Your task to perform on an android device: turn on improve location accuracy Image 0: 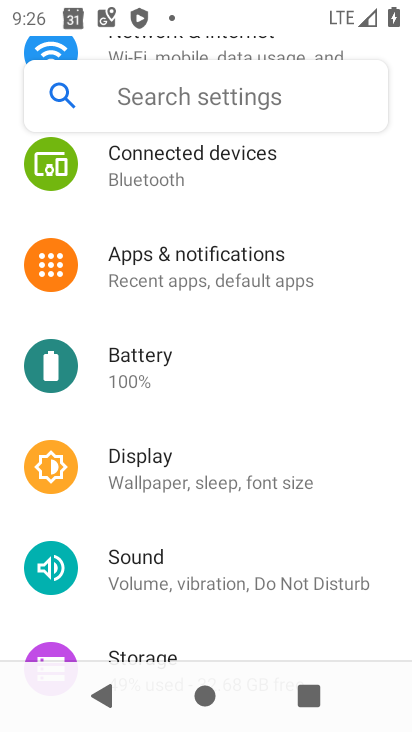
Step 0: press home button
Your task to perform on an android device: turn on improve location accuracy Image 1: 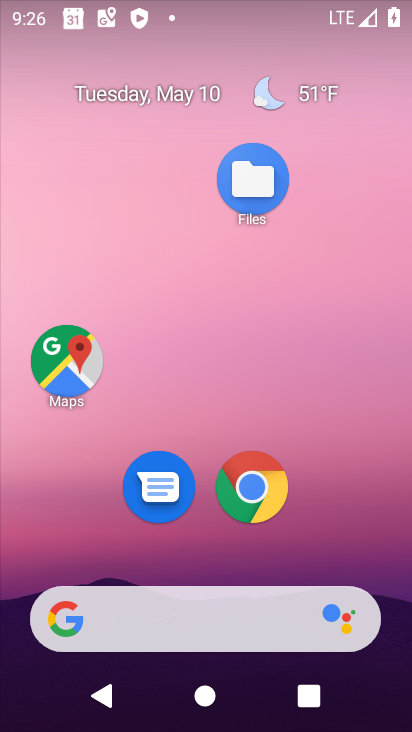
Step 1: drag from (203, 560) to (202, 106)
Your task to perform on an android device: turn on improve location accuracy Image 2: 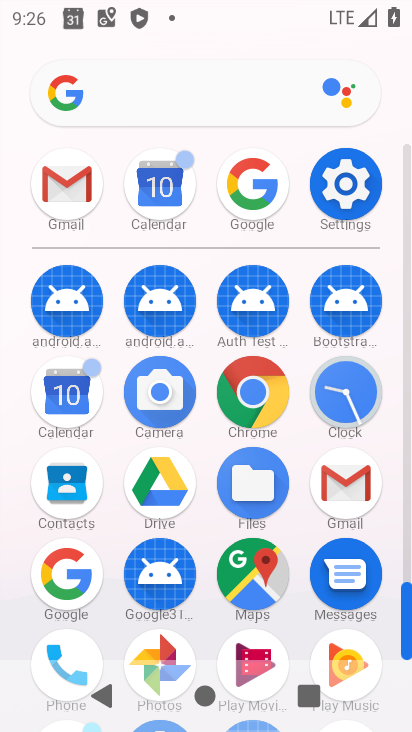
Step 2: click (346, 187)
Your task to perform on an android device: turn on improve location accuracy Image 3: 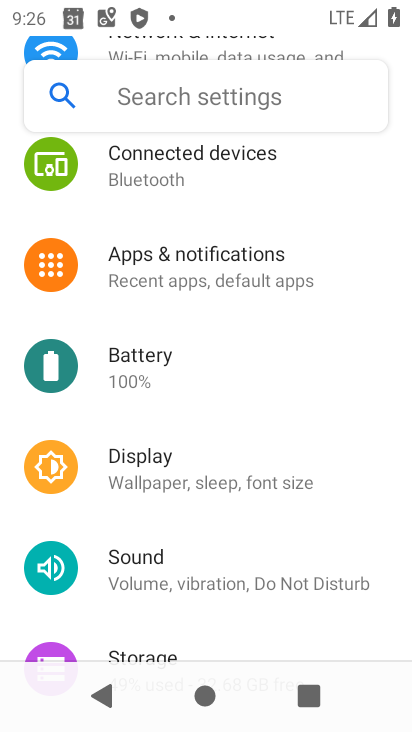
Step 3: drag from (234, 615) to (226, 205)
Your task to perform on an android device: turn on improve location accuracy Image 4: 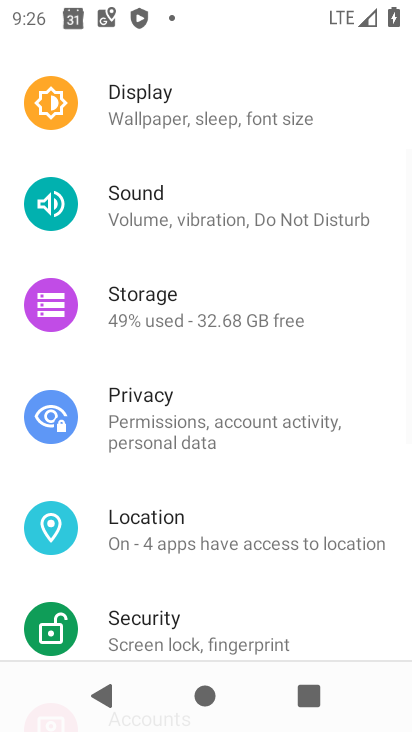
Step 4: click (165, 525)
Your task to perform on an android device: turn on improve location accuracy Image 5: 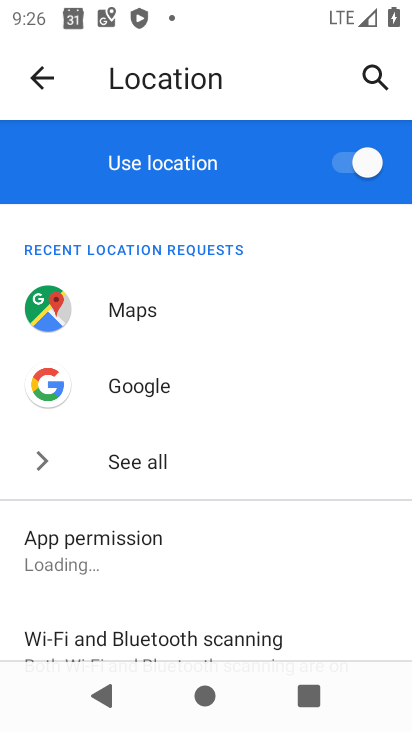
Step 5: drag from (221, 590) to (229, 355)
Your task to perform on an android device: turn on improve location accuracy Image 6: 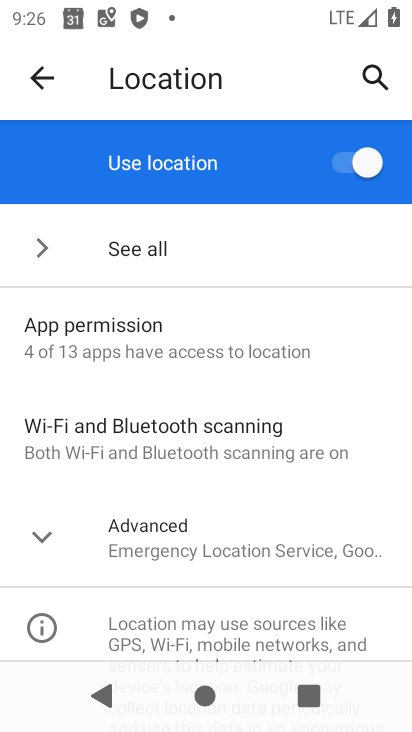
Step 6: drag from (205, 527) to (241, 169)
Your task to perform on an android device: turn on improve location accuracy Image 7: 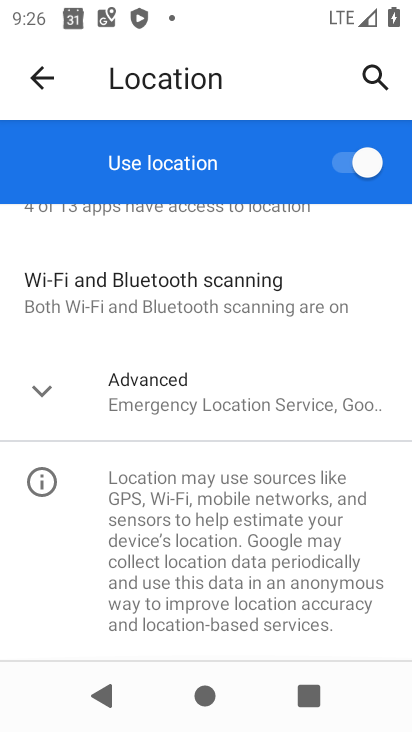
Step 7: click (120, 396)
Your task to perform on an android device: turn on improve location accuracy Image 8: 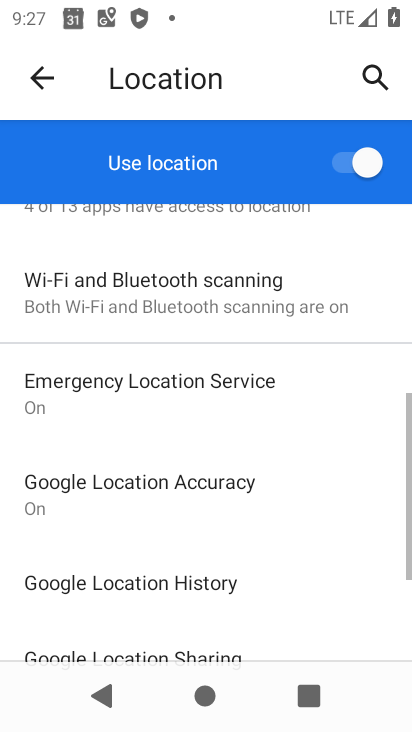
Step 8: task complete